Your task to perform on an android device: change alarm snooze length Image 0: 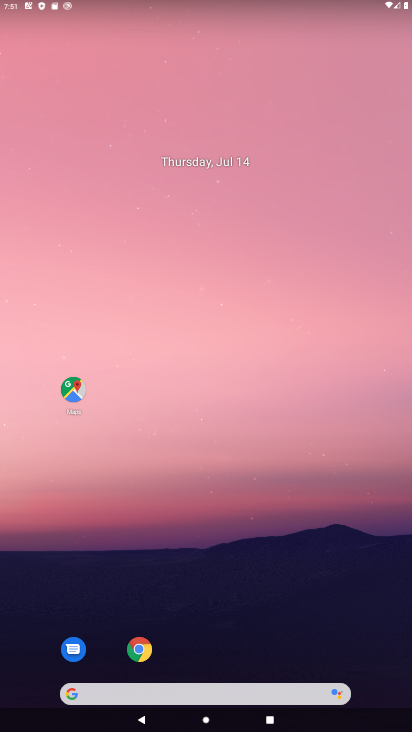
Step 0: press home button
Your task to perform on an android device: change alarm snooze length Image 1: 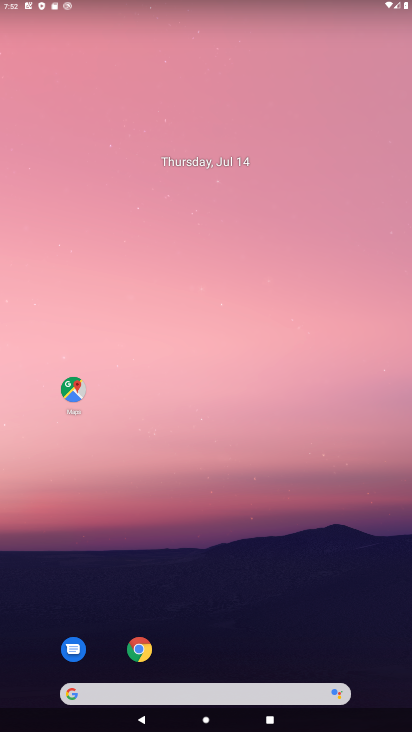
Step 1: drag from (217, 666) to (213, 22)
Your task to perform on an android device: change alarm snooze length Image 2: 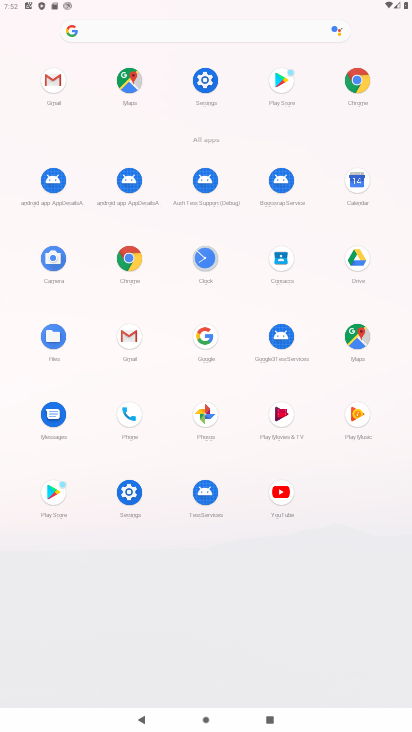
Step 2: click (203, 250)
Your task to perform on an android device: change alarm snooze length Image 3: 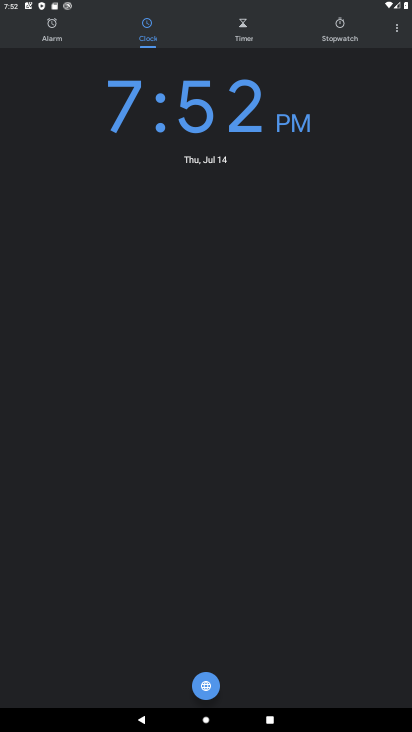
Step 3: click (390, 28)
Your task to perform on an android device: change alarm snooze length Image 4: 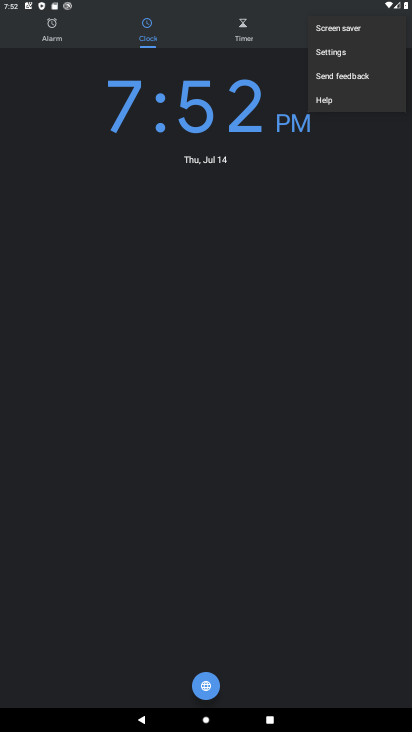
Step 4: click (338, 51)
Your task to perform on an android device: change alarm snooze length Image 5: 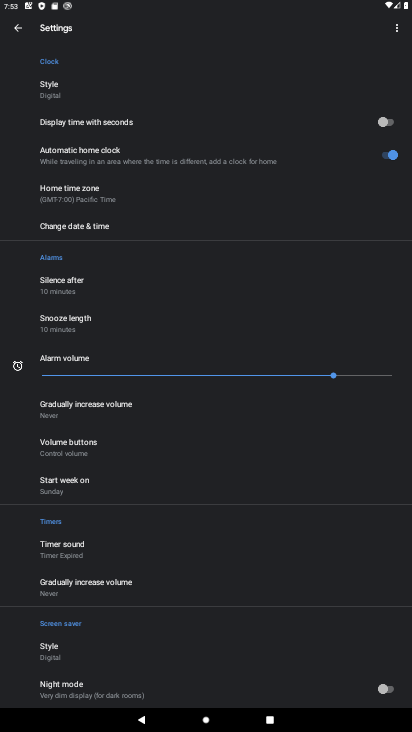
Step 5: click (115, 324)
Your task to perform on an android device: change alarm snooze length Image 6: 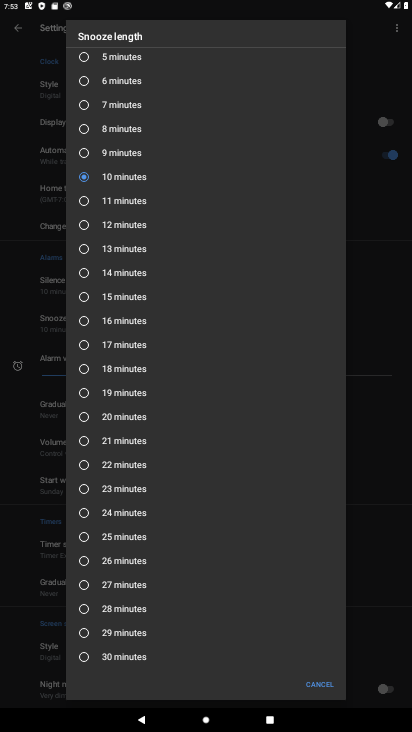
Step 6: click (89, 106)
Your task to perform on an android device: change alarm snooze length Image 7: 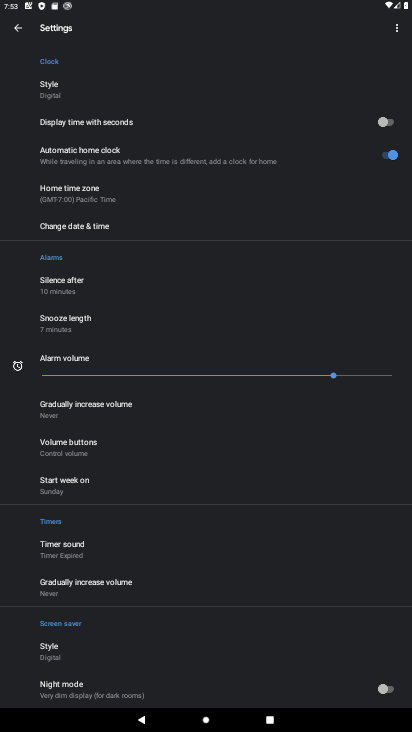
Step 7: task complete